Your task to perform on an android device: Is it going to rain tomorrow? Image 0: 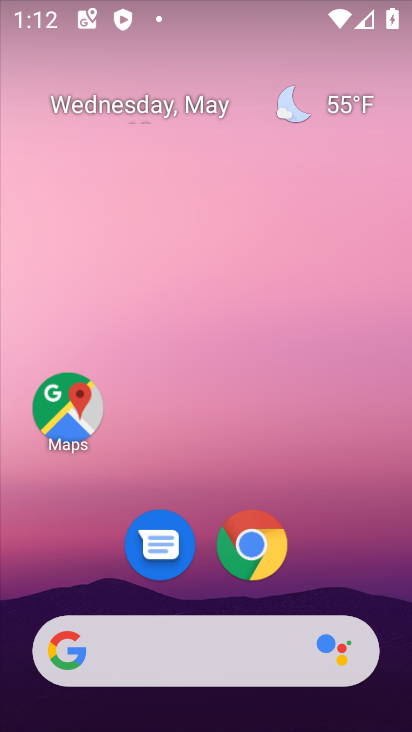
Step 0: click (337, 109)
Your task to perform on an android device: Is it going to rain tomorrow? Image 1: 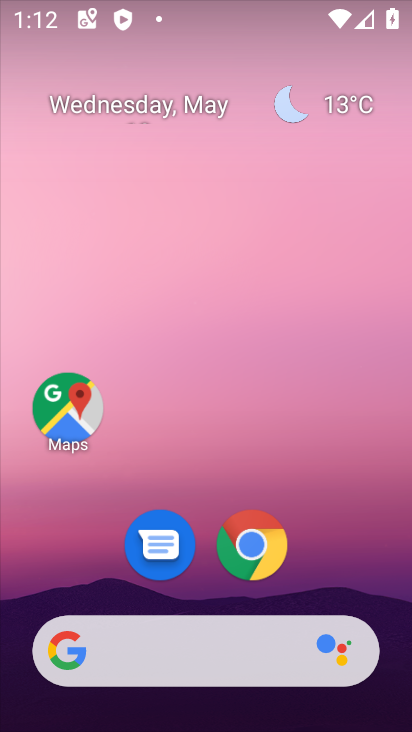
Step 1: click (339, 99)
Your task to perform on an android device: Is it going to rain tomorrow? Image 2: 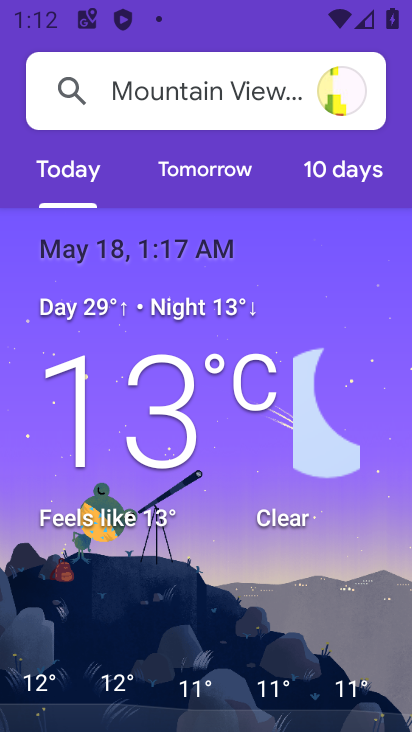
Step 2: click (199, 187)
Your task to perform on an android device: Is it going to rain tomorrow? Image 3: 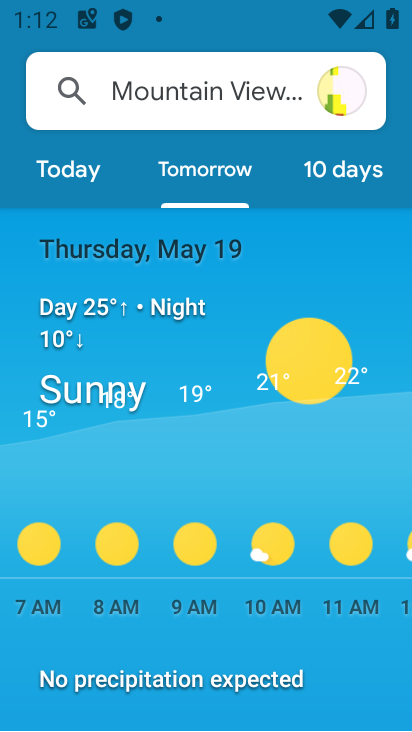
Step 3: task complete